Your task to perform on an android device: Check the new Jordans on Nike. Image 0: 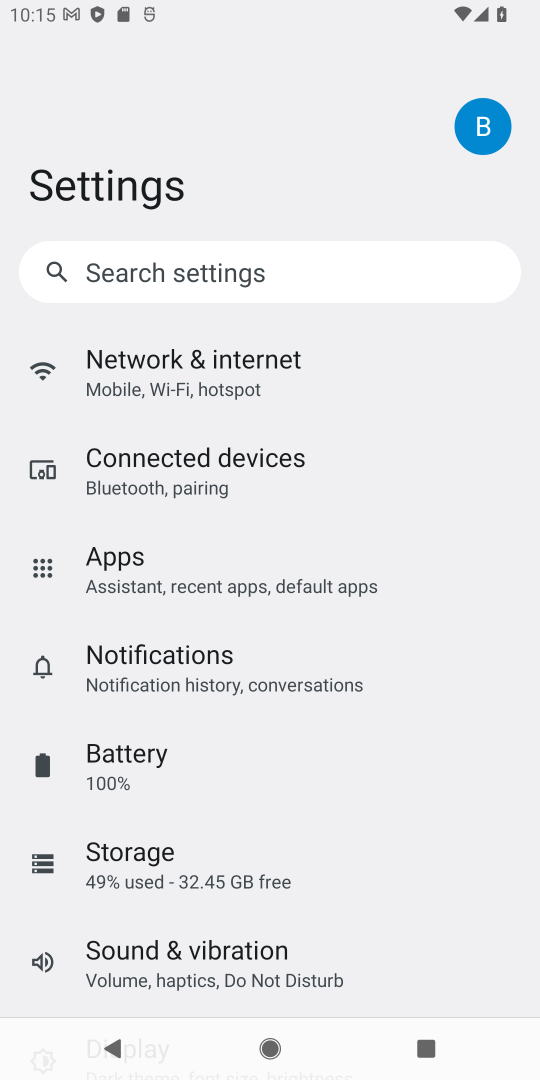
Step 0: press home button
Your task to perform on an android device: Check the new Jordans on Nike. Image 1: 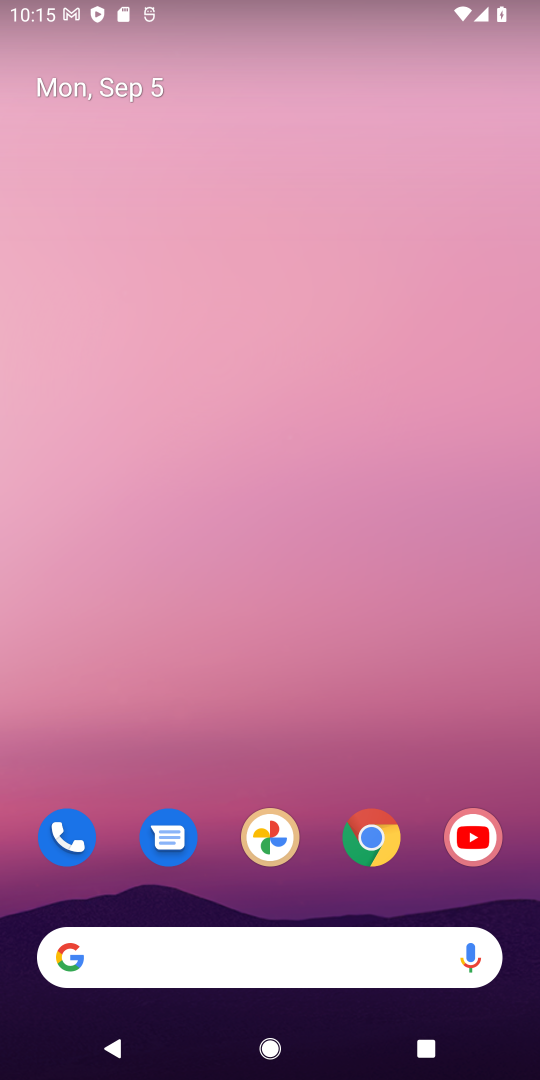
Step 1: drag from (324, 827) to (313, 271)
Your task to perform on an android device: Check the new Jordans on Nike. Image 2: 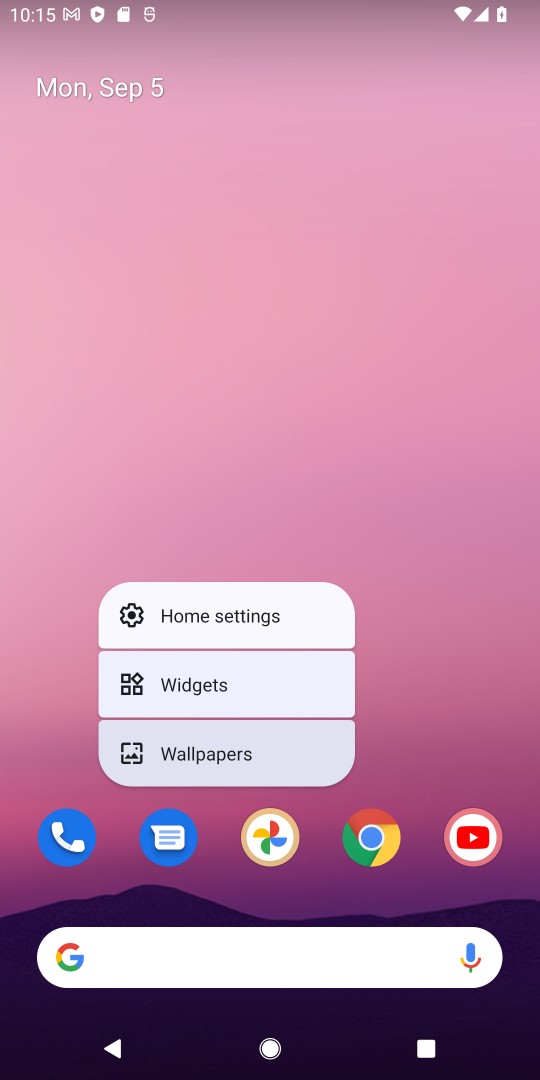
Step 2: click (470, 705)
Your task to perform on an android device: Check the new Jordans on Nike. Image 3: 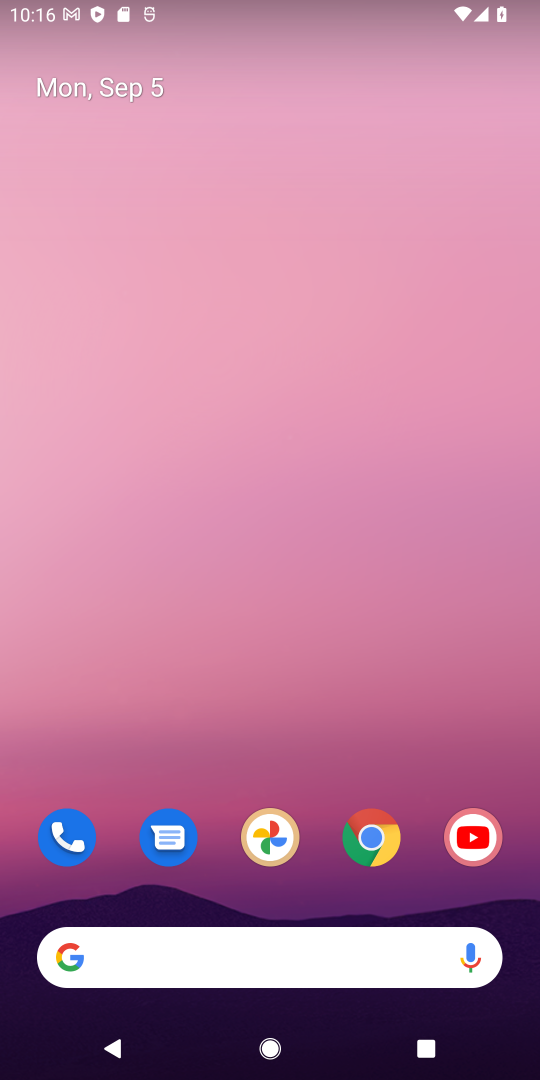
Step 3: drag from (303, 483) to (287, 342)
Your task to perform on an android device: Check the new Jordans on Nike. Image 4: 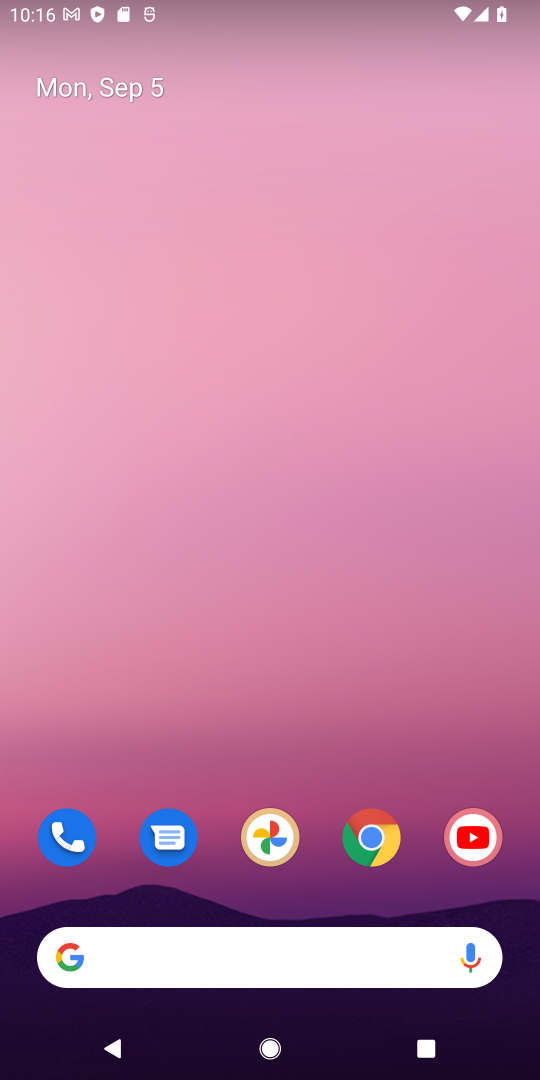
Step 4: drag from (340, 556) to (360, 17)
Your task to perform on an android device: Check the new Jordans on Nike. Image 5: 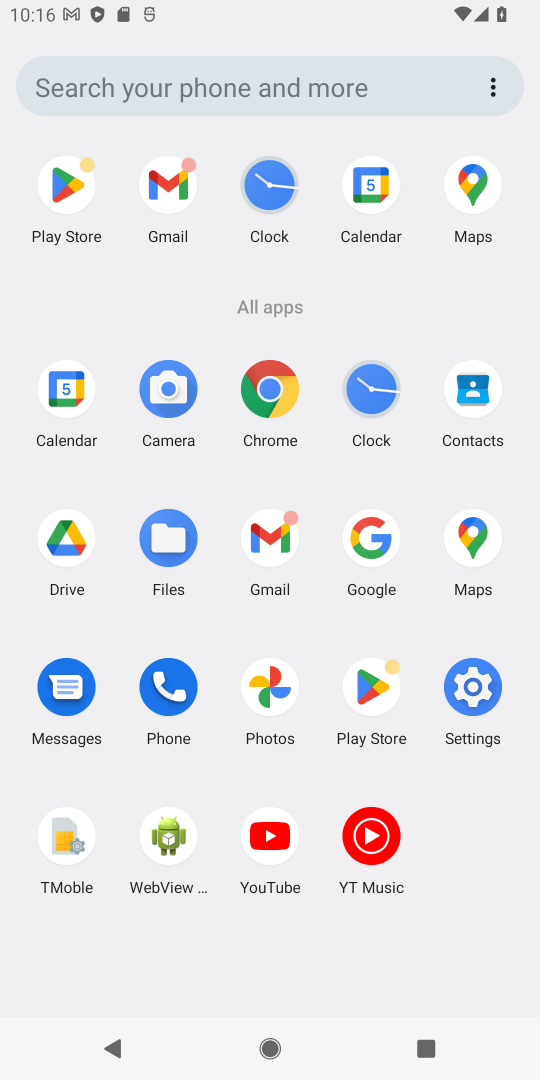
Step 5: click (266, 384)
Your task to perform on an android device: Check the new Jordans on Nike. Image 6: 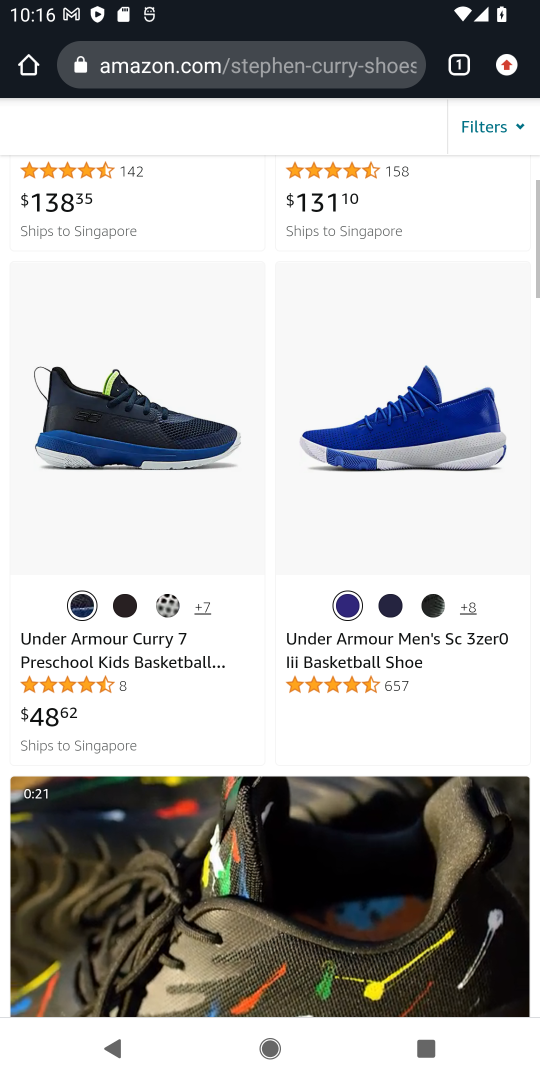
Step 6: click (289, 61)
Your task to perform on an android device: Check the new Jordans on Nike. Image 7: 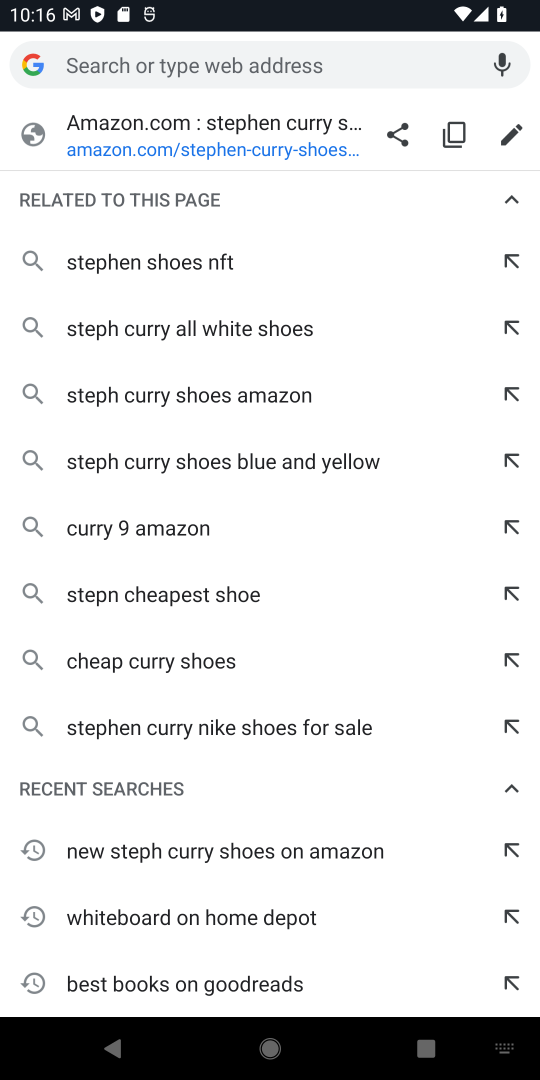
Step 7: click (216, 54)
Your task to perform on an android device: Check the new Jordans on Nike. Image 8: 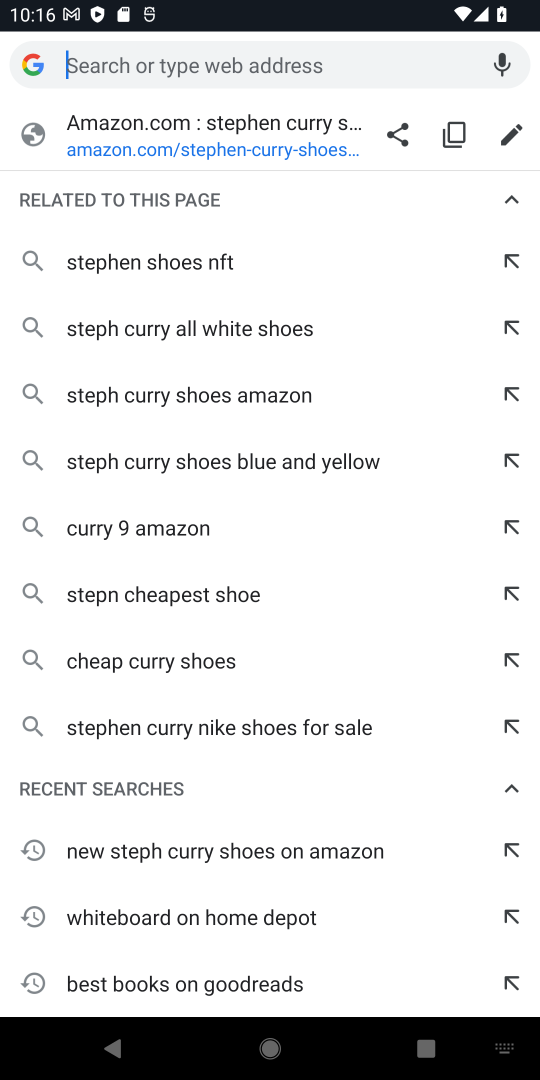
Step 8: type "new Jordans on Nike"
Your task to perform on an android device: Check the new Jordans on Nike. Image 9: 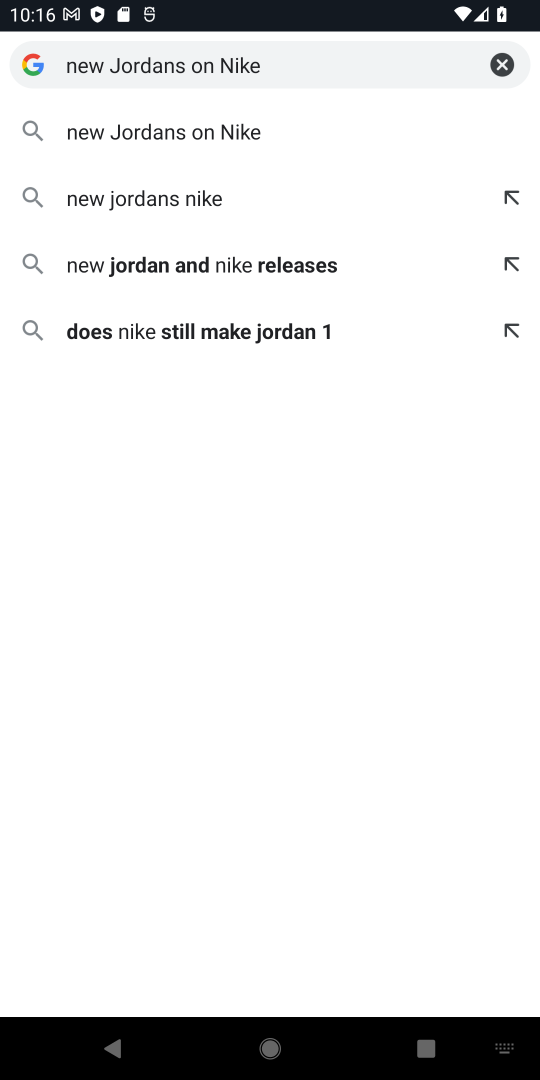
Step 9: click (259, 134)
Your task to perform on an android device: Check the new Jordans on Nike. Image 10: 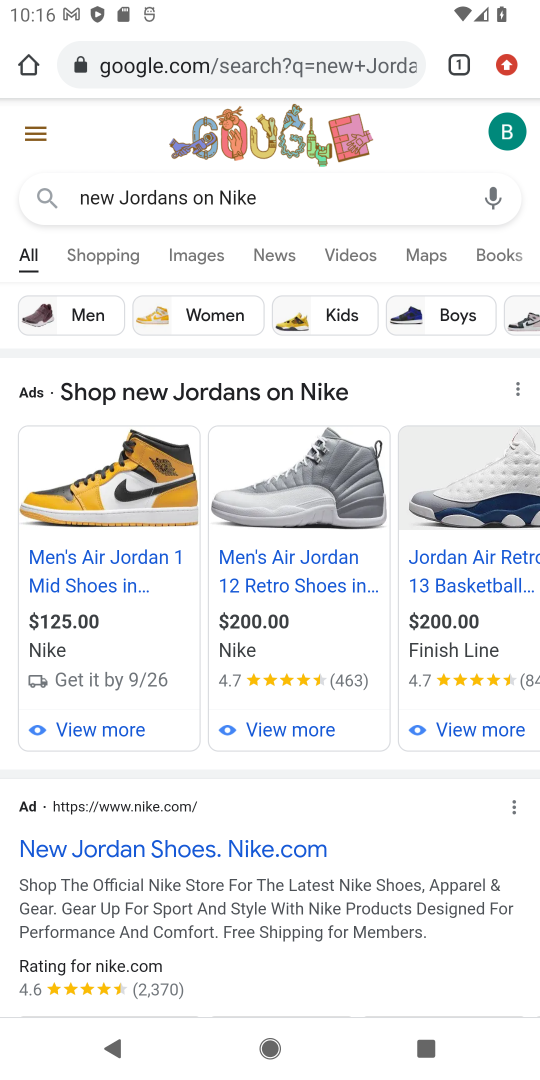
Step 10: drag from (221, 811) to (261, 466)
Your task to perform on an android device: Check the new Jordans on Nike. Image 11: 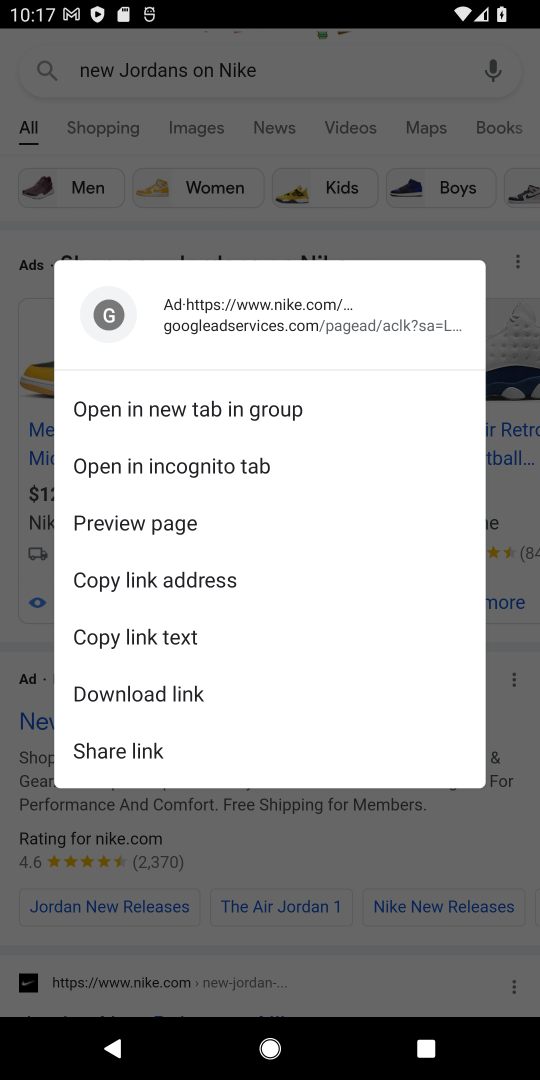
Step 11: click (85, 863)
Your task to perform on an android device: Check the new Jordans on Nike. Image 12: 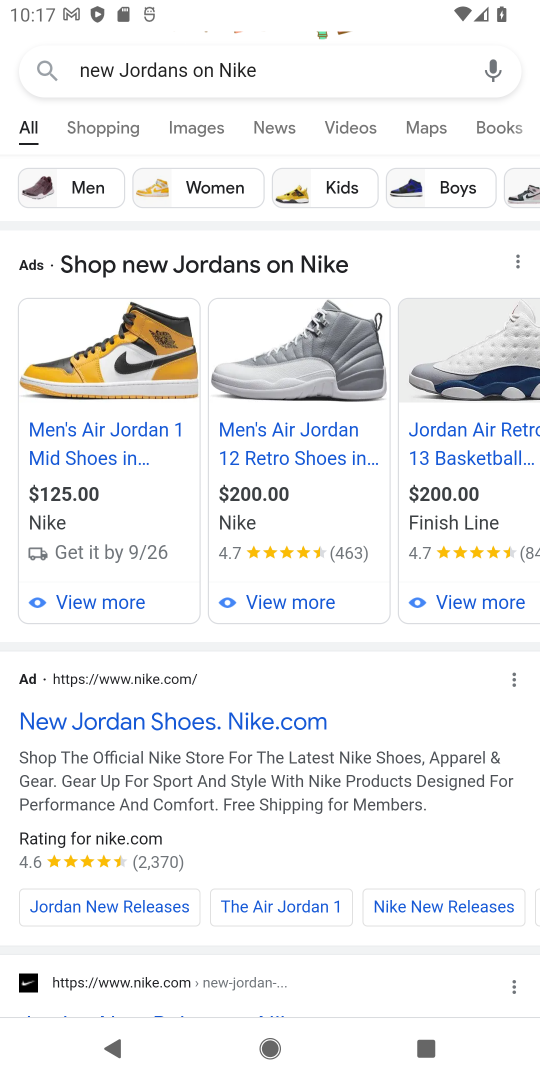
Step 12: click (180, 713)
Your task to perform on an android device: Check the new Jordans on Nike. Image 13: 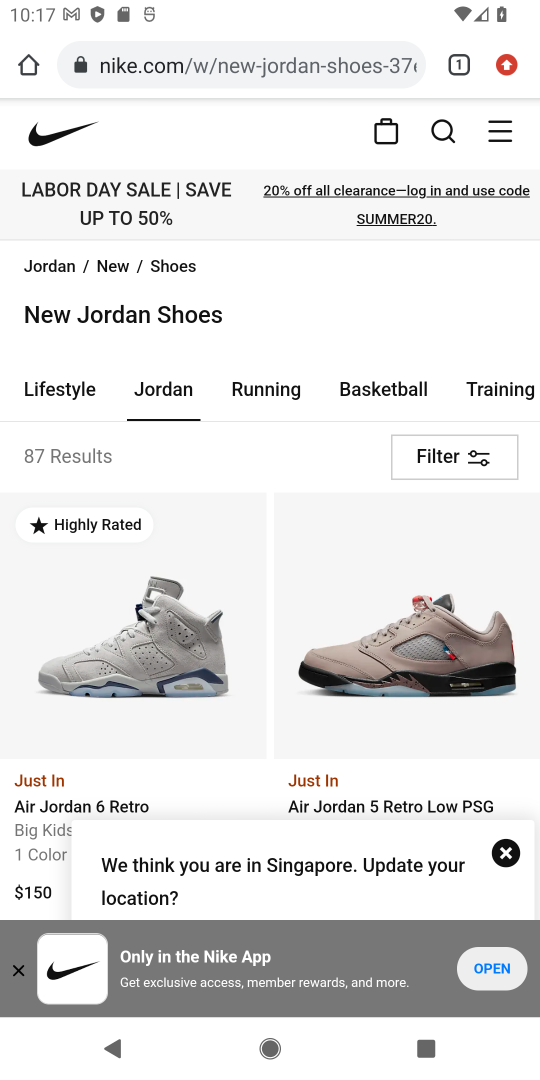
Step 13: drag from (277, 472) to (313, 152)
Your task to perform on an android device: Check the new Jordans on Nike. Image 14: 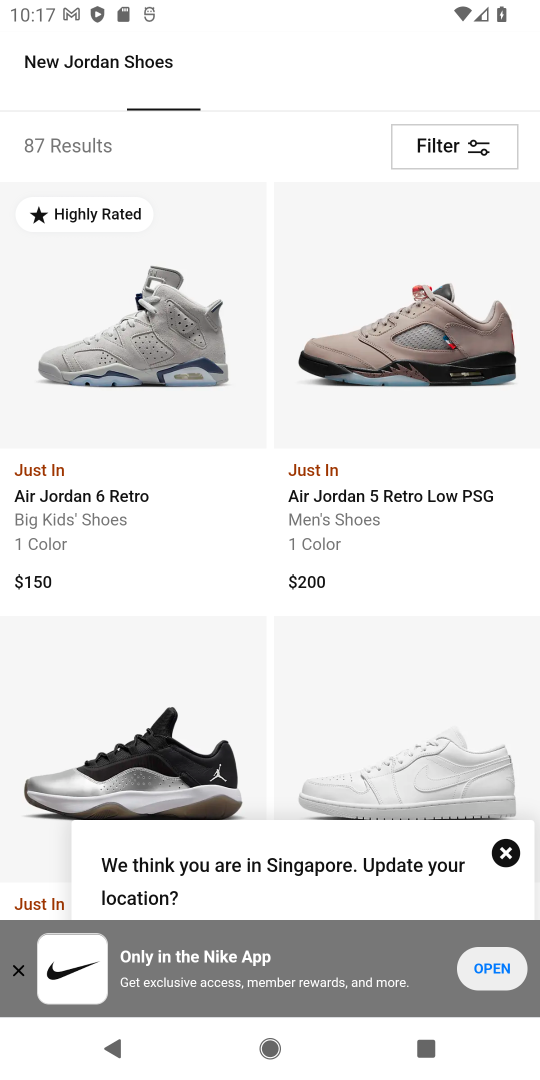
Step 14: drag from (261, 797) to (293, 127)
Your task to perform on an android device: Check the new Jordans on Nike. Image 15: 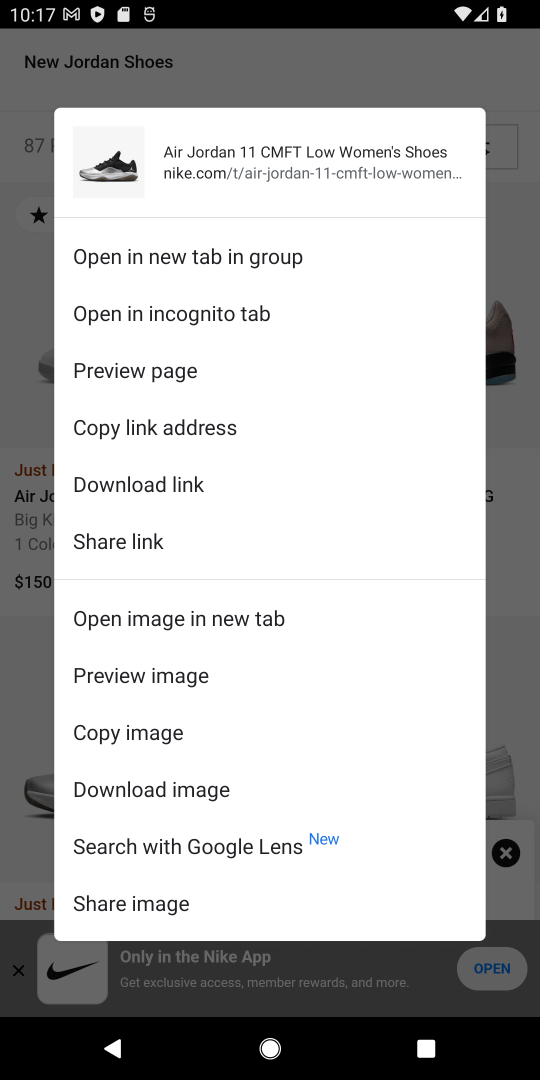
Step 15: click (21, 665)
Your task to perform on an android device: Check the new Jordans on Nike. Image 16: 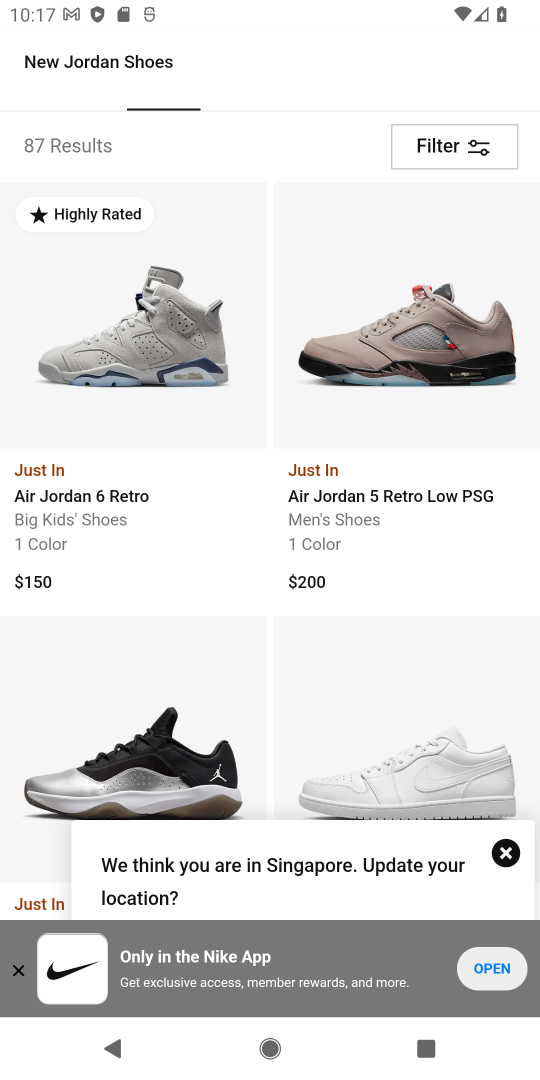
Step 16: task complete